Your task to perform on an android device: Go to Android settings Image 0: 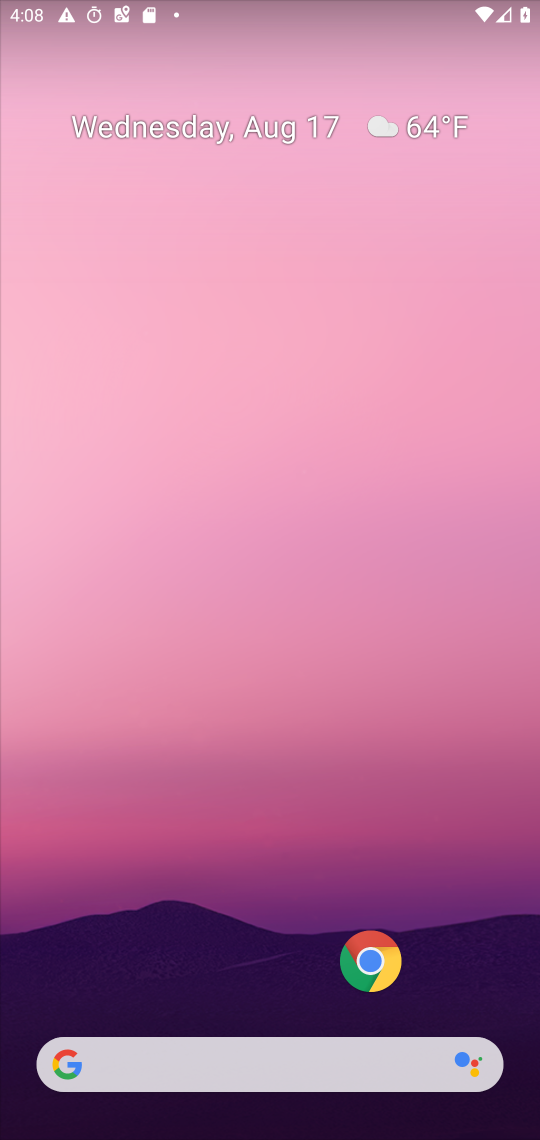
Step 0: drag from (296, 1050) to (386, 185)
Your task to perform on an android device: Go to Android settings Image 1: 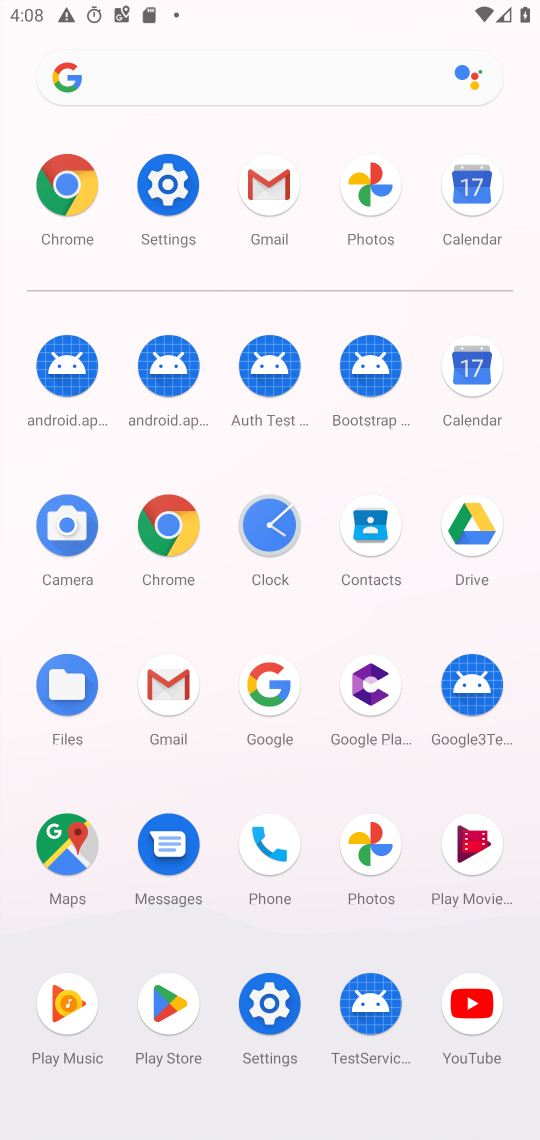
Step 1: click (192, 215)
Your task to perform on an android device: Go to Android settings Image 2: 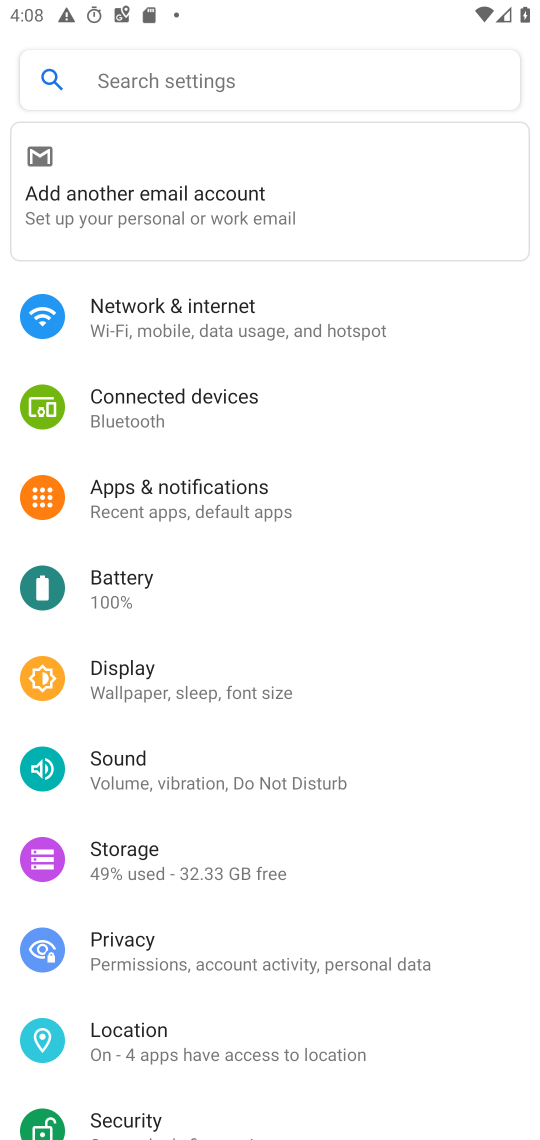
Step 2: drag from (192, 937) to (280, 227)
Your task to perform on an android device: Go to Android settings Image 3: 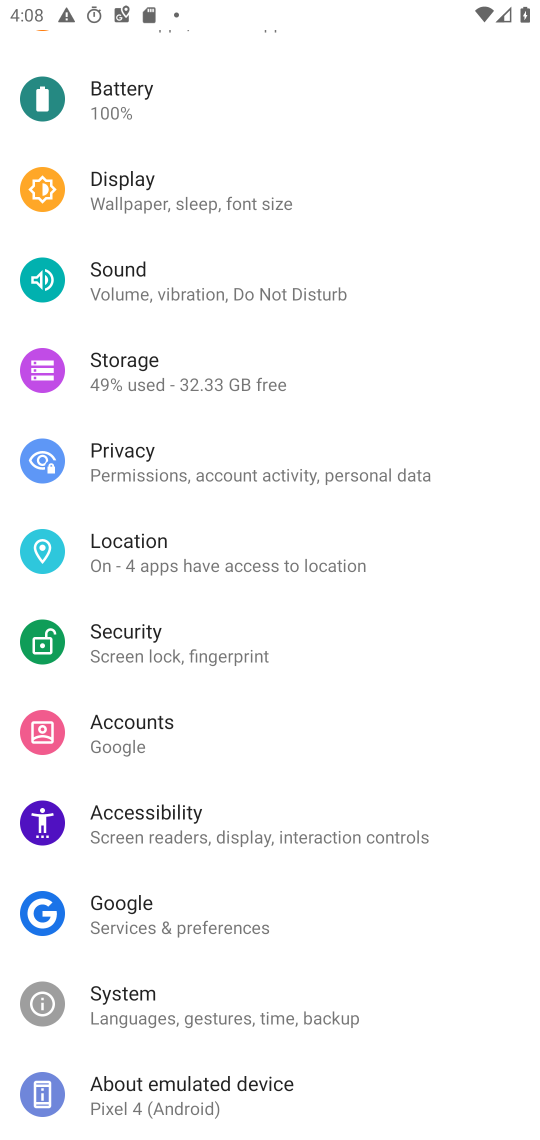
Step 3: drag from (204, 947) to (277, 302)
Your task to perform on an android device: Go to Android settings Image 4: 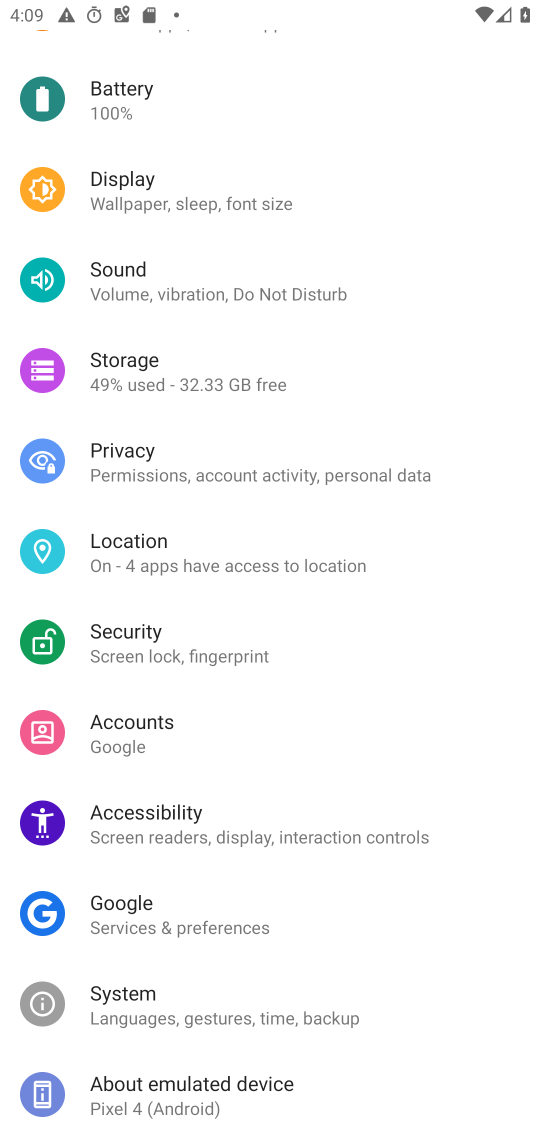
Step 4: click (248, 1103)
Your task to perform on an android device: Go to Android settings Image 5: 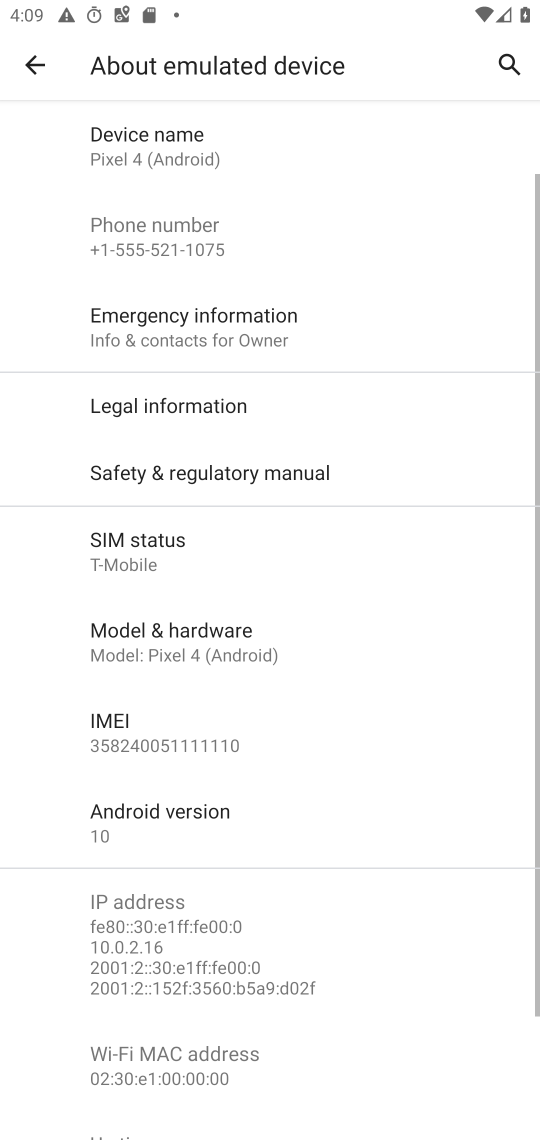
Step 5: click (217, 814)
Your task to perform on an android device: Go to Android settings Image 6: 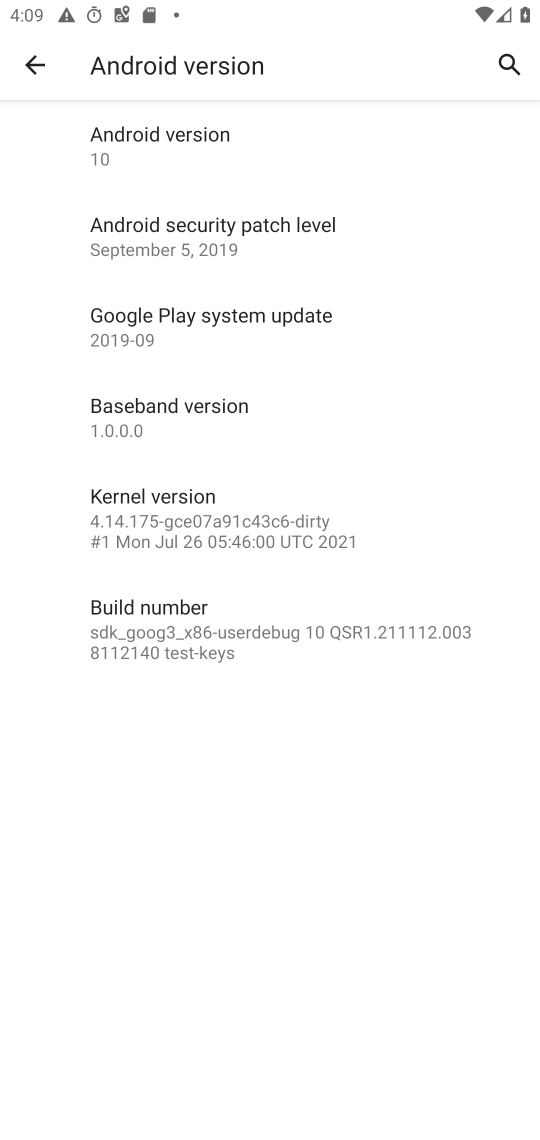
Step 6: task complete